Your task to perform on an android device: Search for Mexican restaurants on Maps Image 0: 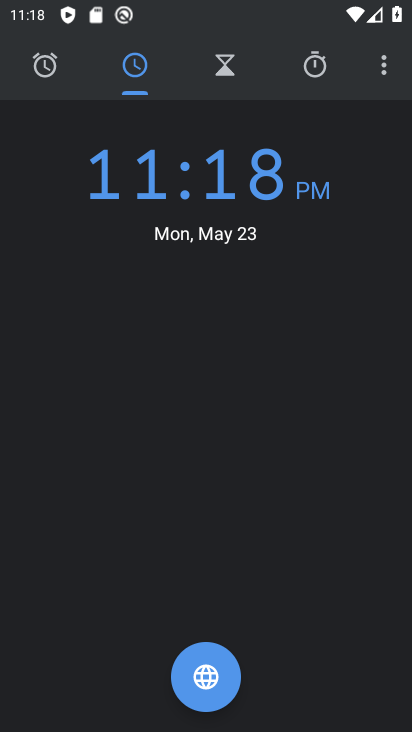
Step 0: press home button
Your task to perform on an android device: Search for Mexican restaurants on Maps Image 1: 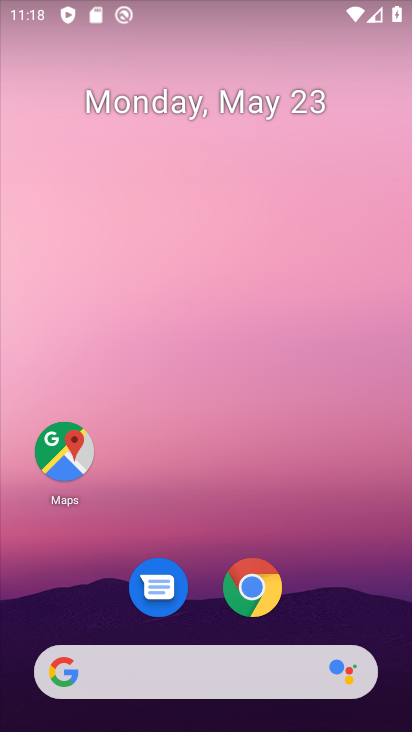
Step 1: click (53, 452)
Your task to perform on an android device: Search for Mexican restaurants on Maps Image 2: 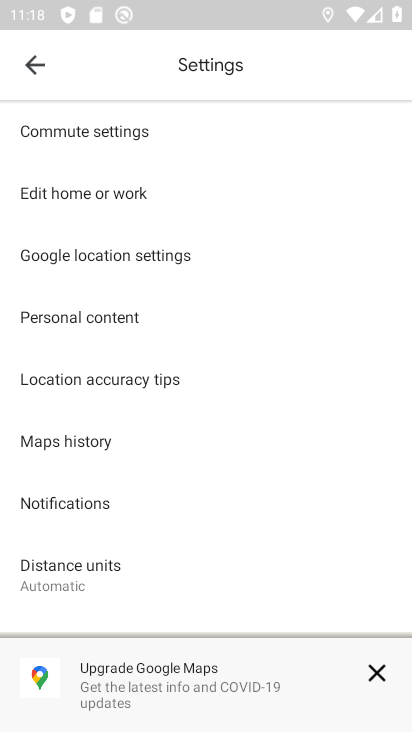
Step 2: click (40, 66)
Your task to perform on an android device: Search for Mexican restaurants on Maps Image 3: 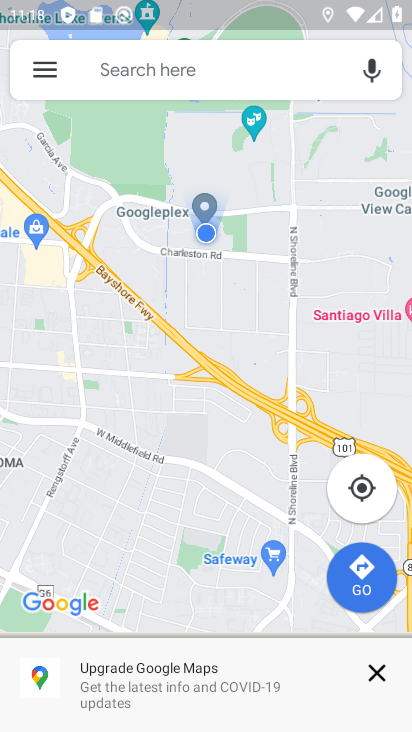
Step 3: click (117, 78)
Your task to perform on an android device: Search for Mexican restaurants on Maps Image 4: 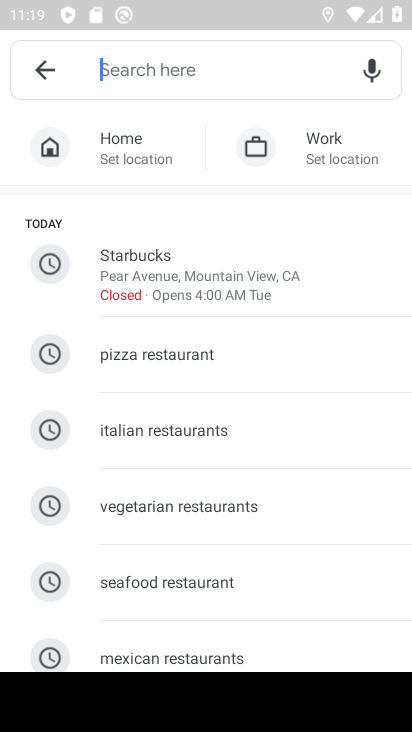
Step 4: click (202, 650)
Your task to perform on an android device: Search for Mexican restaurants on Maps Image 5: 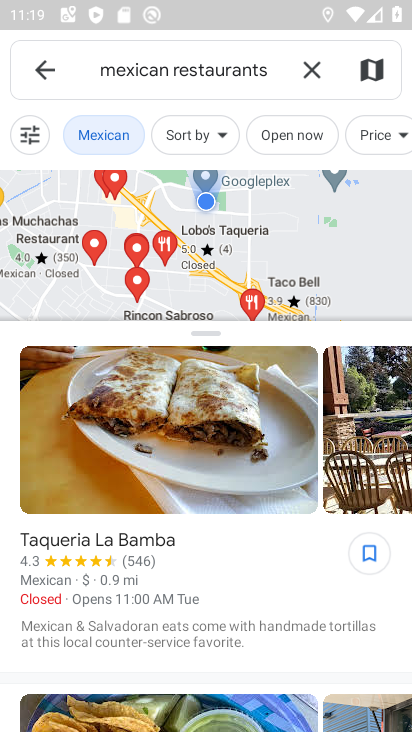
Step 5: task complete